Your task to perform on an android device: Show me the alarms in the clock app Image 0: 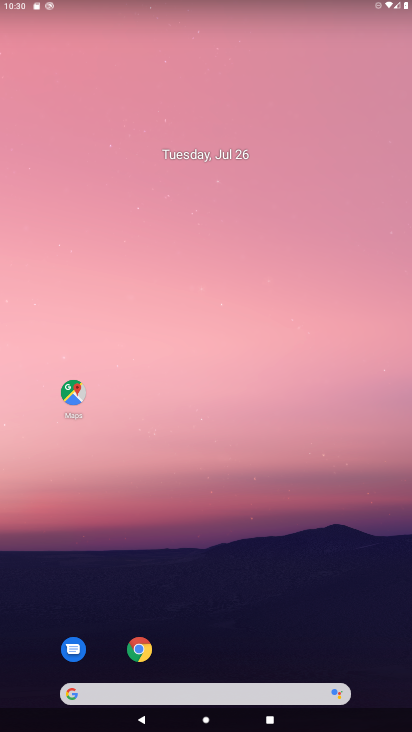
Step 0: drag from (250, 681) to (274, 124)
Your task to perform on an android device: Show me the alarms in the clock app Image 1: 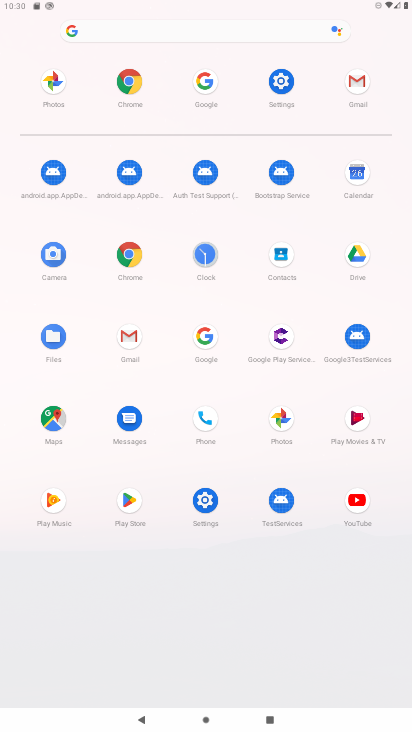
Step 1: click (202, 261)
Your task to perform on an android device: Show me the alarms in the clock app Image 2: 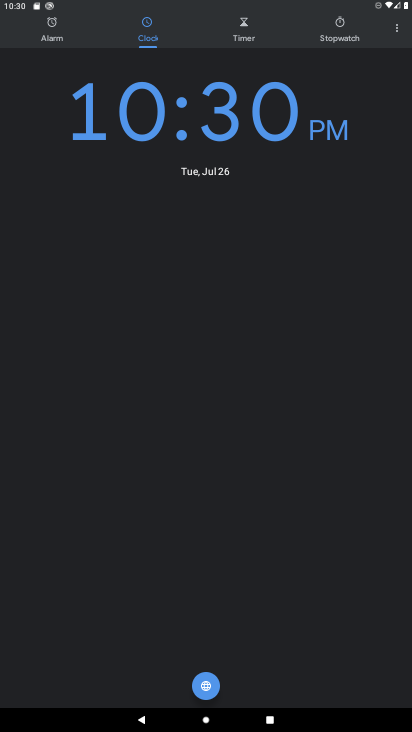
Step 2: click (45, 28)
Your task to perform on an android device: Show me the alarms in the clock app Image 3: 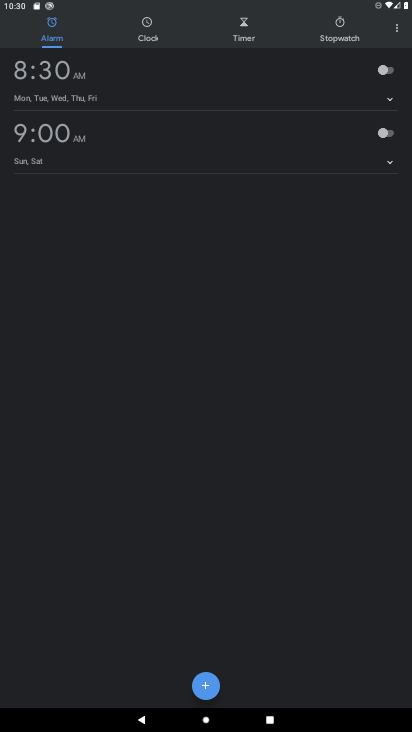
Step 3: task complete